Your task to perform on an android device: Open accessibility settings Image 0: 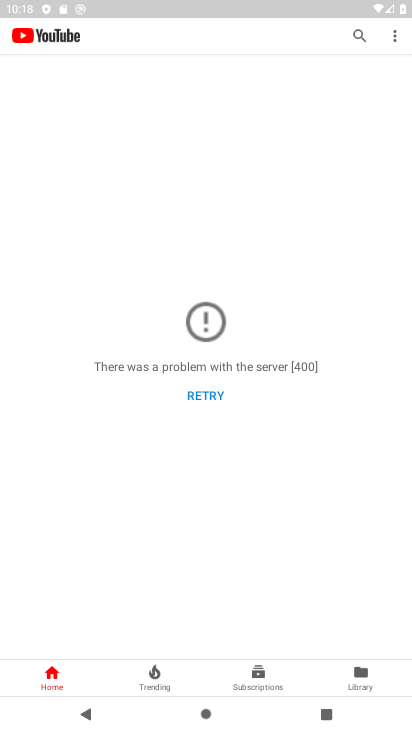
Step 0: press home button
Your task to perform on an android device: Open accessibility settings Image 1: 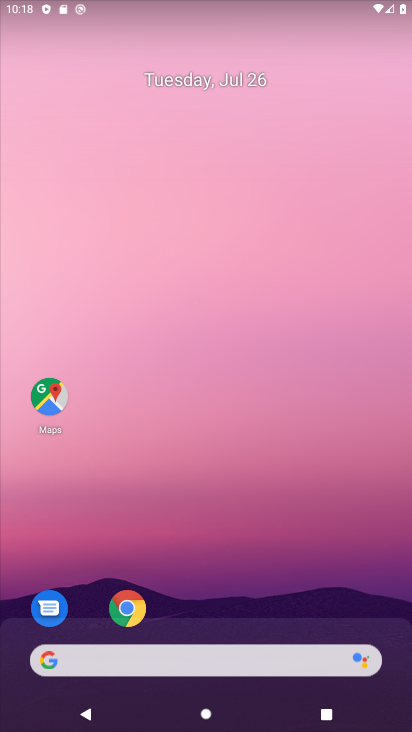
Step 1: drag from (277, 285) to (266, 11)
Your task to perform on an android device: Open accessibility settings Image 2: 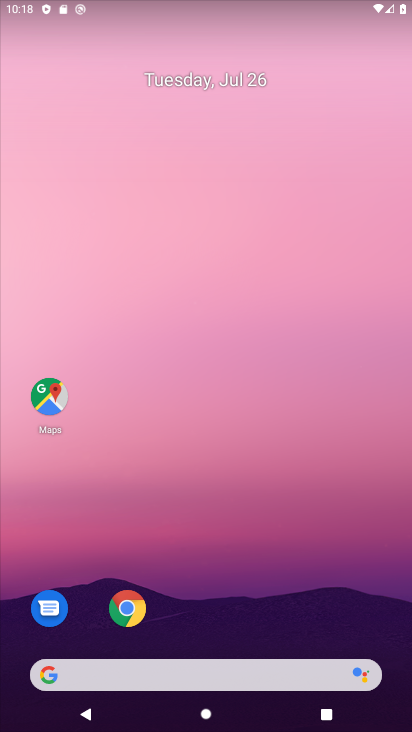
Step 2: drag from (264, 562) to (199, 43)
Your task to perform on an android device: Open accessibility settings Image 3: 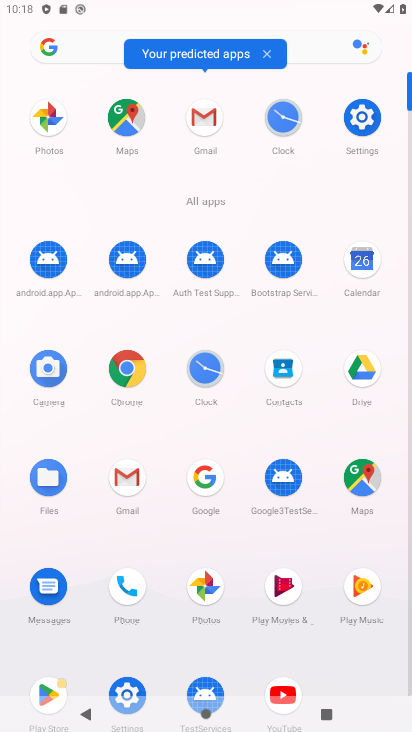
Step 3: click (362, 124)
Your task to perform on an android device: Open accessibility settings Image 4: 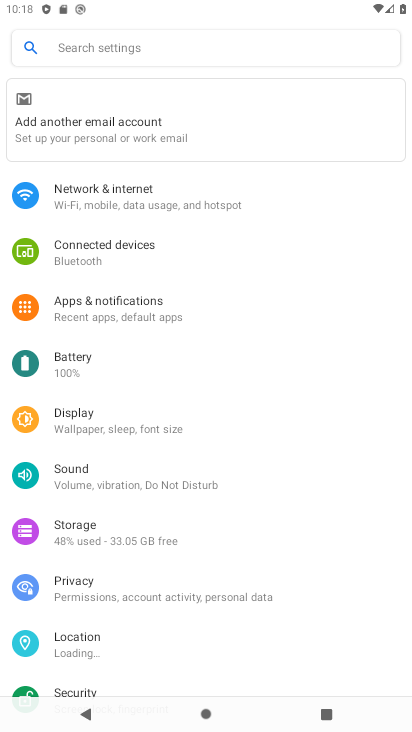
Step 4: drag from (179, 630) to (254, 158)
Your task to perform on an android device: Open accessibility settings Image 5: 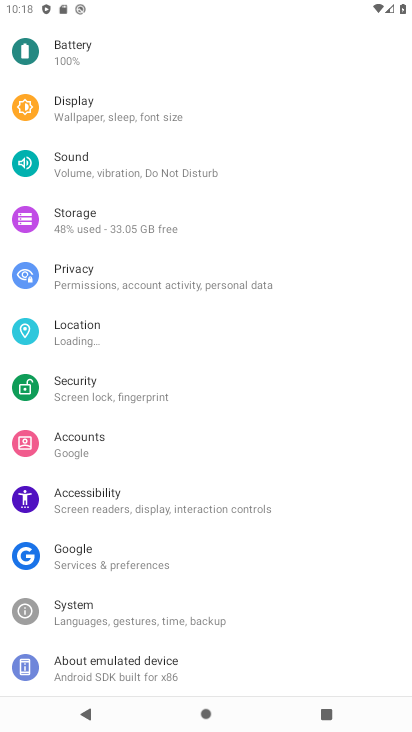
Step 5: click (112, 501)
Your task to perform on an android device: Open accessibility settings Image 6: 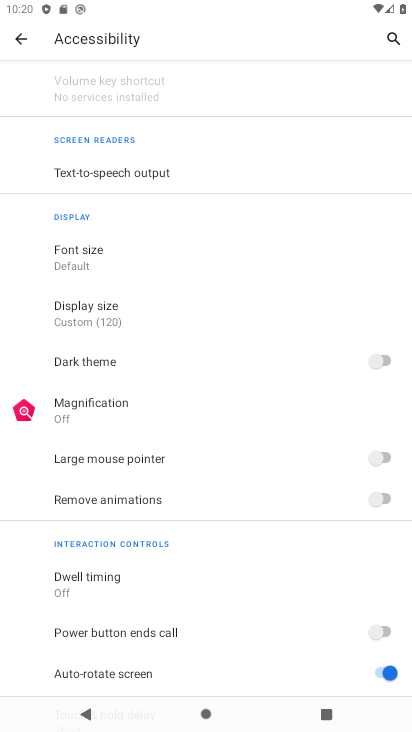
Step 6: task complete